Your task to perform on an android device: Open eBay Image 0: 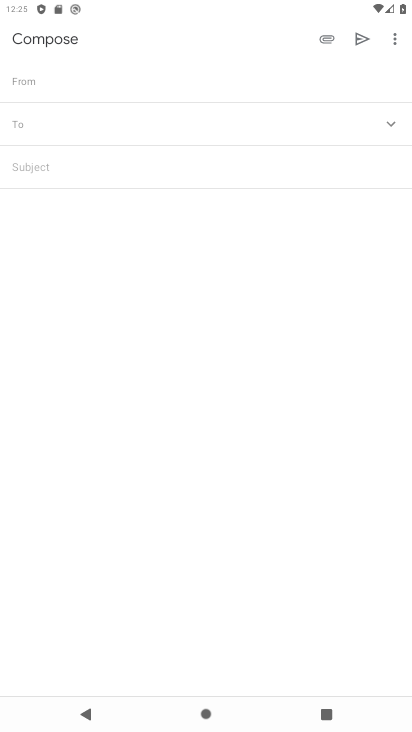
Step 0: drag from (251, 571) to (247, 95)
Your task to perform on an android device: Open eBay Image 1: 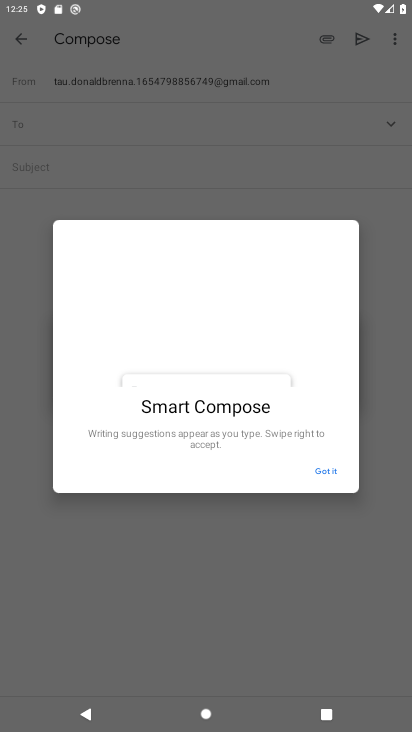
Step 1: press home button
Your task to perform on an android device: Open eBay Image 2: 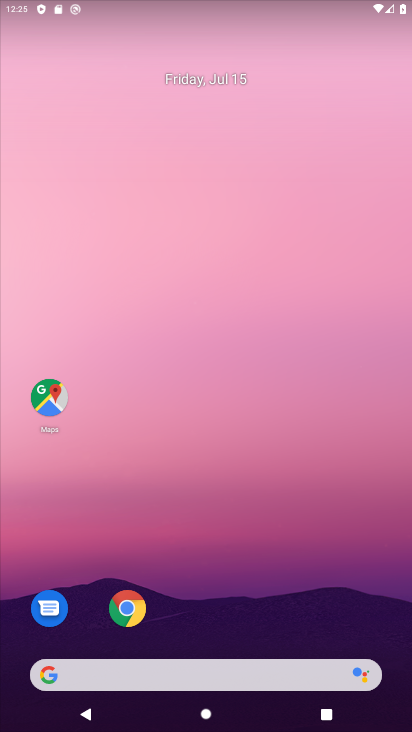
Step 2: drag from (296, 602) to (287, 60)
Your task to perform on an android device: Open eBay Image 3: 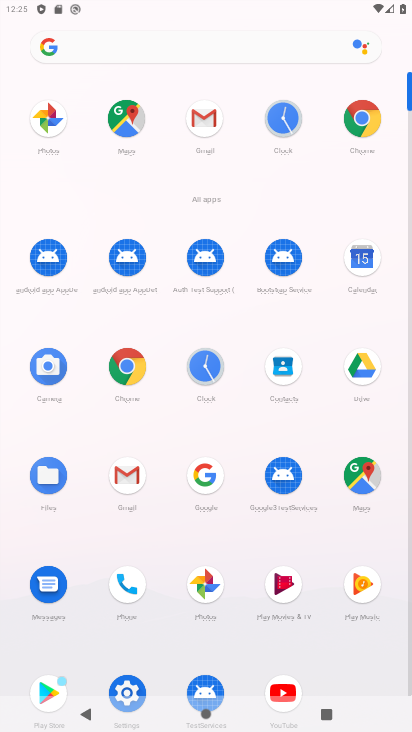
Step 3: click (134, 366)
Your task to perform on an android device: Open eBay Image 4: 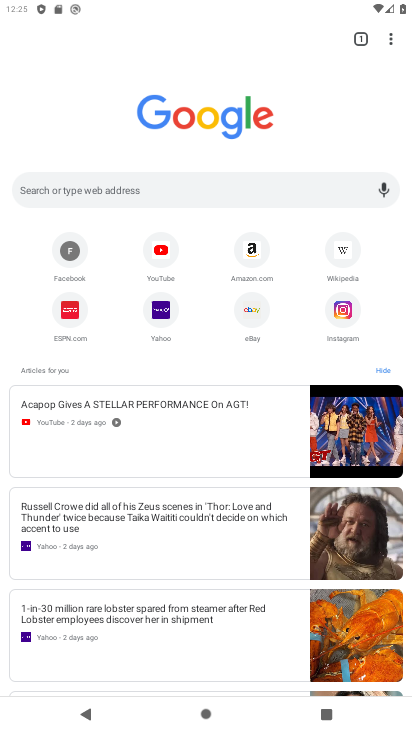
Step 4: click (205, 186)
Your task to perform on an android device: Open eBay Image 5: 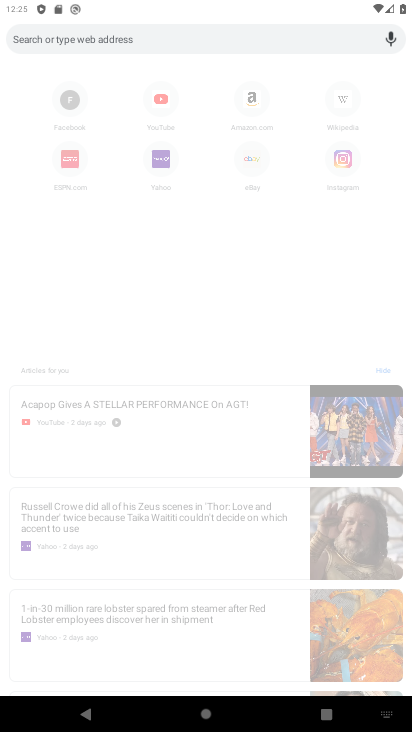
Step 5: type "eBay"
Your task to perform on an android device: Open eBay Image 6: 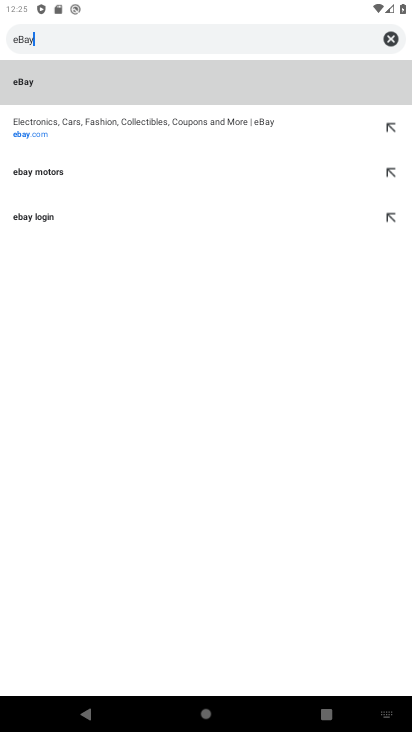
Step 6: click (18, 126)
Your task to perform on an android device: Open eBay Image 7: 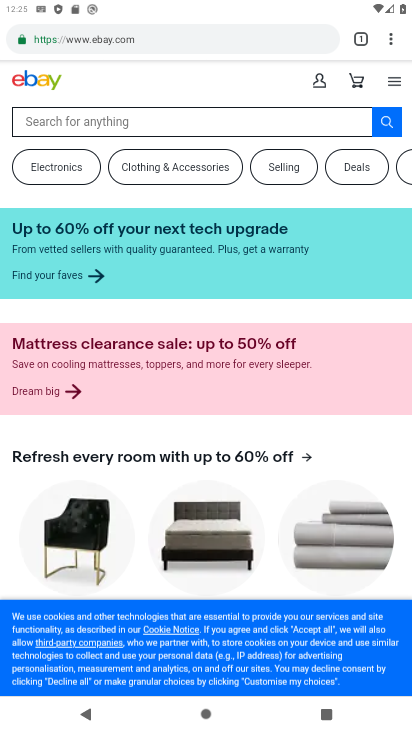
Step 7: task complete